Your task to perform on an android device: Open CNN.com Image 0: 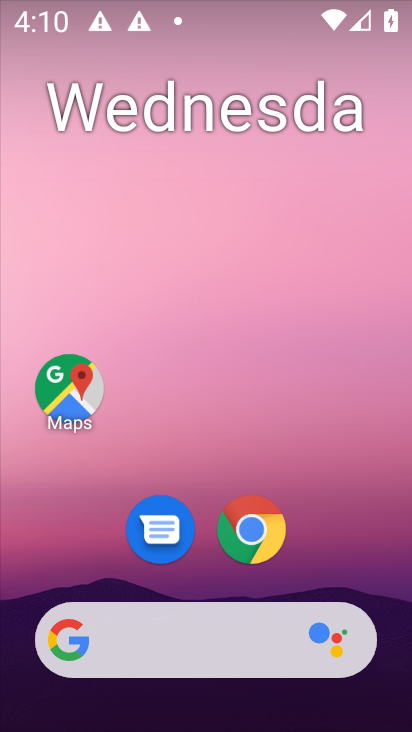
Step 0: click (241, 527)
Your task to perform on an android device: Open CNN.com Image 1: 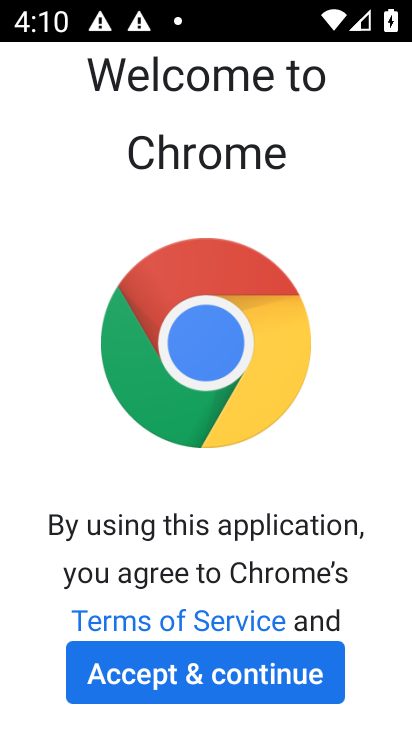
Step 1: click (225, 688)
Your task to perform on an android device: Open CNN.com Image 2: 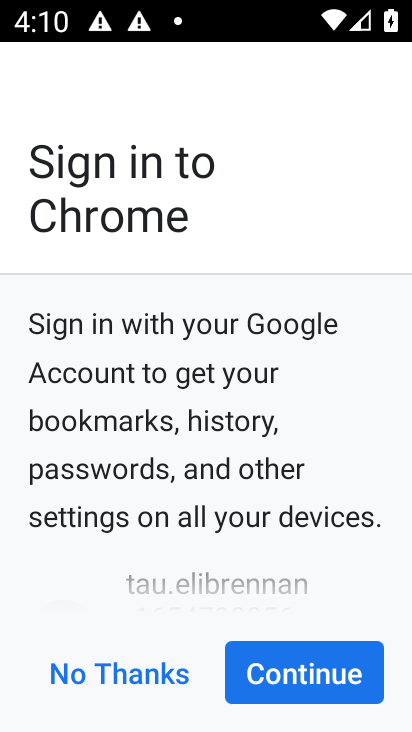
Step 2: click (262, 671)
Your task to perform on an android device: Open CNN.com Image 3: 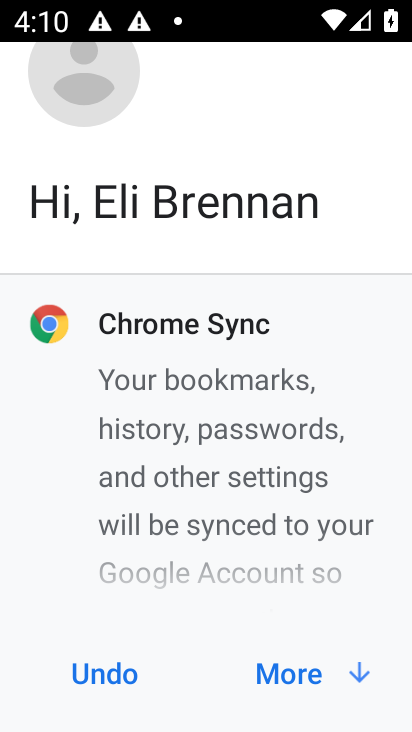
Step 3: click (263, 672)
Your task to perform on an android device: Open CNN.com Image 4: 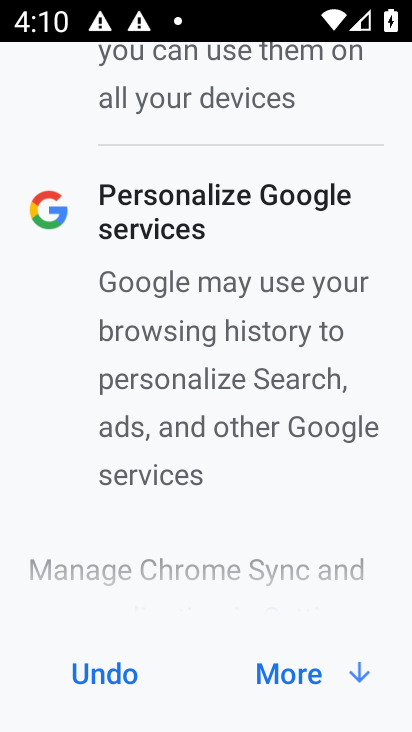
Step 4: click (302, 675)
Your task to perform on an android device: Open CNN.com Image 5: 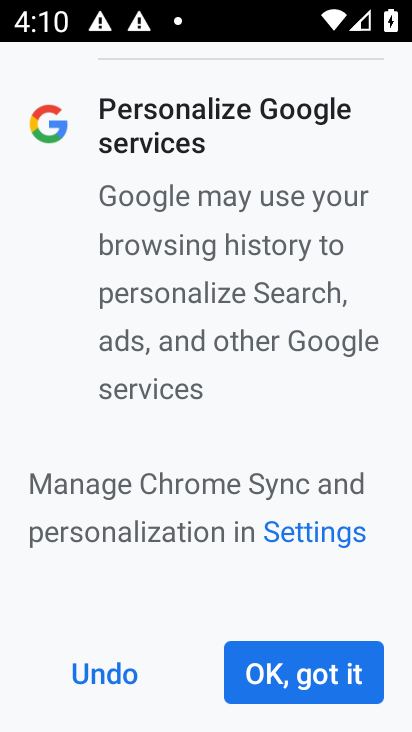
Step 5: click (292, 680)
Your task to perform on an android device: Open CNN.com Image 6: 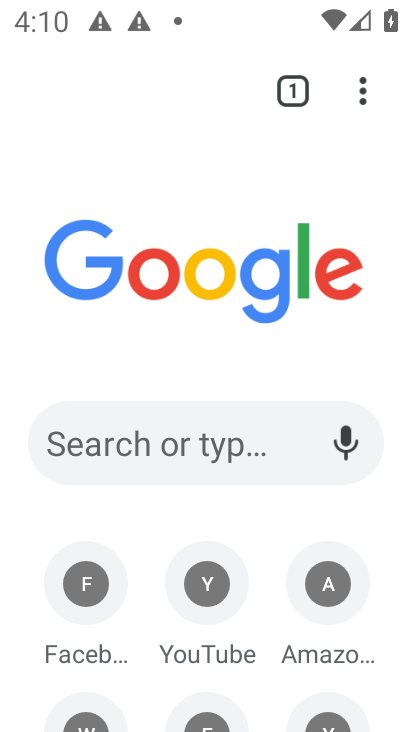
Step 6: click (265, 626)
Your task to perform on an android device: Open CNN.com Image 7: 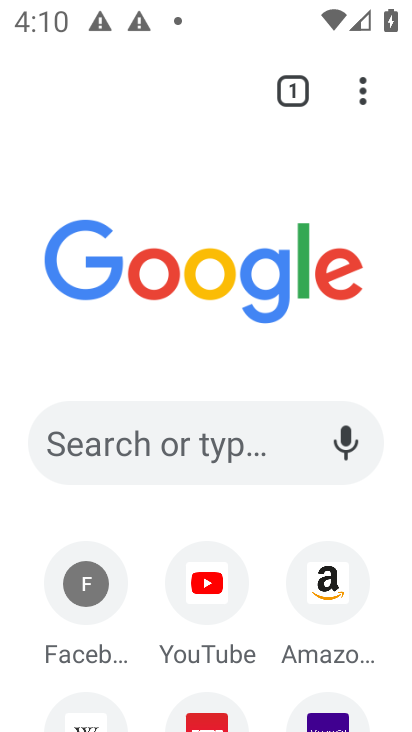
Step 7: click (213, 401)
Your task to perform on an android device: Open CNN.com Image 8: 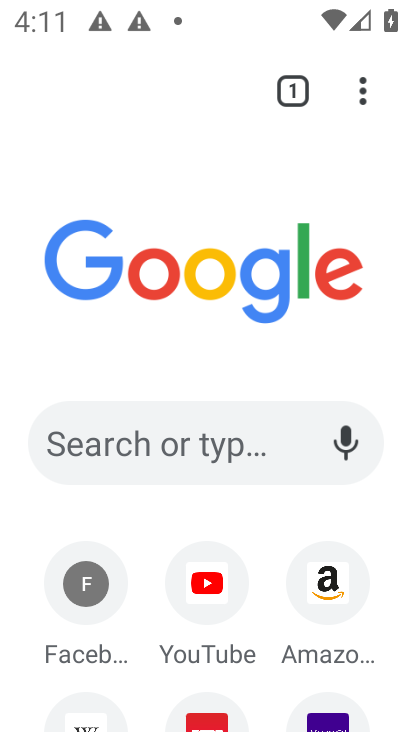
Step 8: click (178, 457)
Your task to perform on an android device: Open CNN.com Image 9: 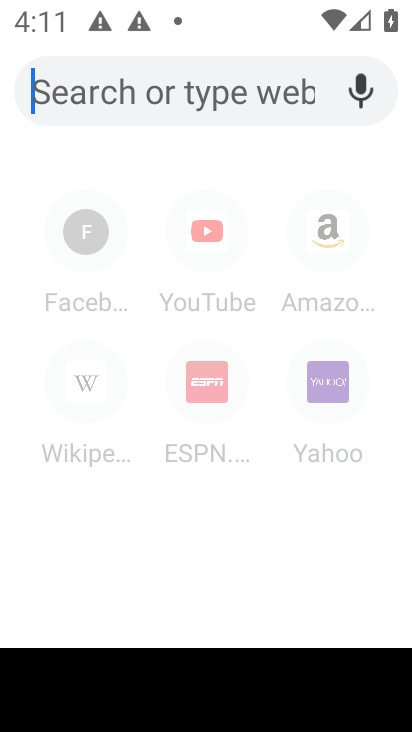
Step 9: type "CNN.com"
Your task to perform on an android device: Open CNN.com Image 10: 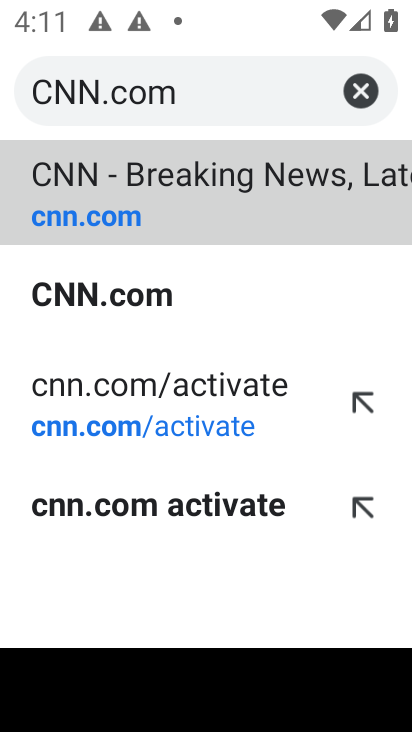
Step 10: click (182, 213)
Your task to perform on an android device: Open CNN.com Image 11: 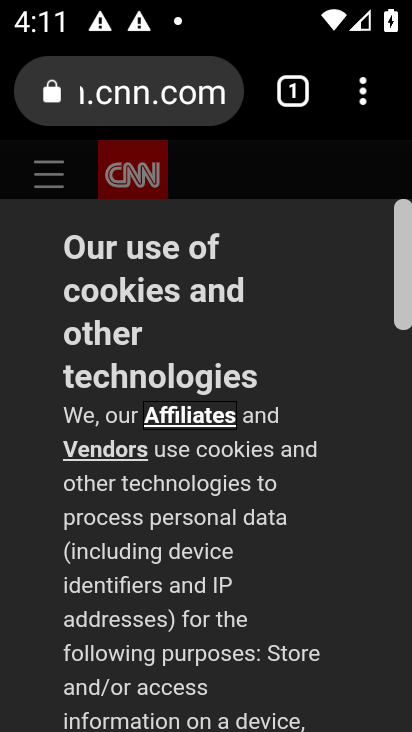
Step 11: task complete